Your task to perform on an android device: check google app version Image 0: 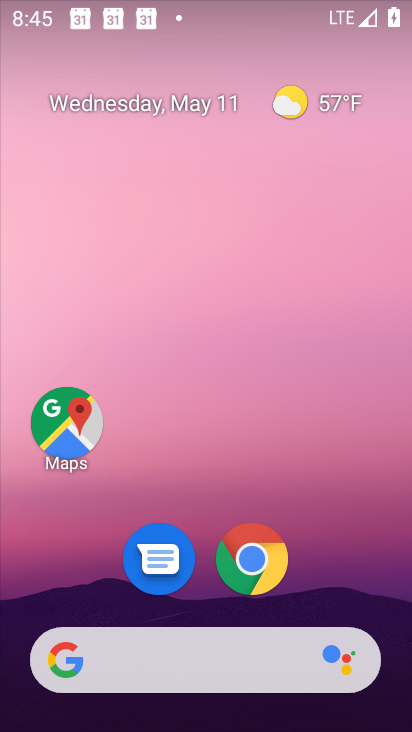
Step 0: press home button
Your task to perform on an android device: check google app version Image 1: 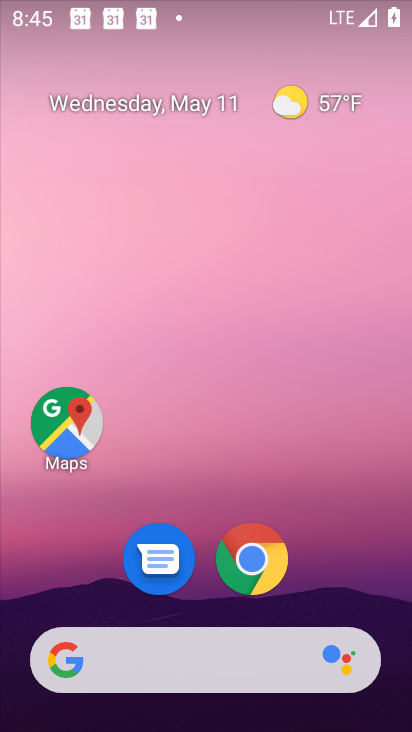
Step 1: drag from (334, 583) to (316, 17)
Your task to perform on an android device: check google app version Image 2: 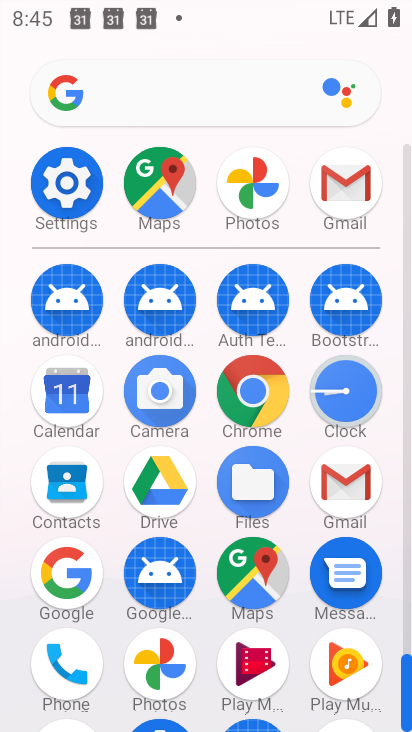
Step 2: click (43, 579)
Your task to perform on an android device: check google app version Image 3: 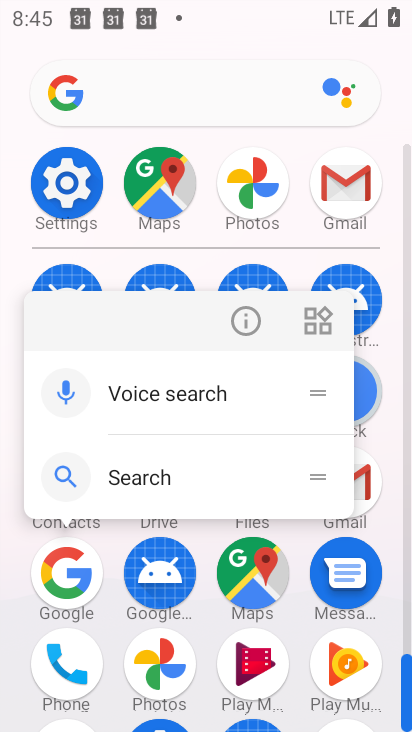
Step 3: click (239, 333)
Your task to perform on an android device: check google app version Image 4: 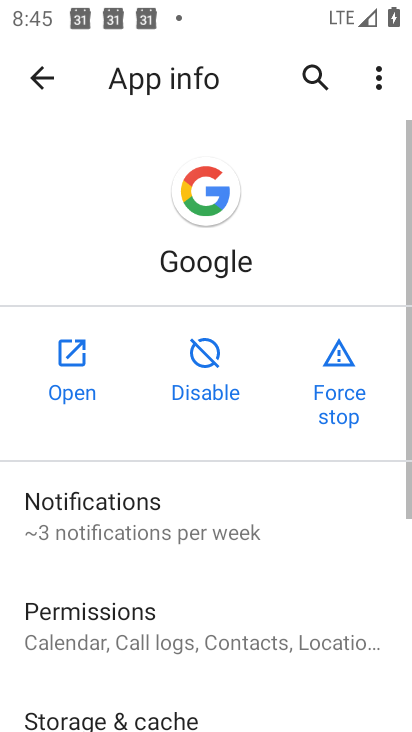
Step 4: drag from (286, 578) to (284, 65)
Your task to perform on an android device: check google app version Image 5: 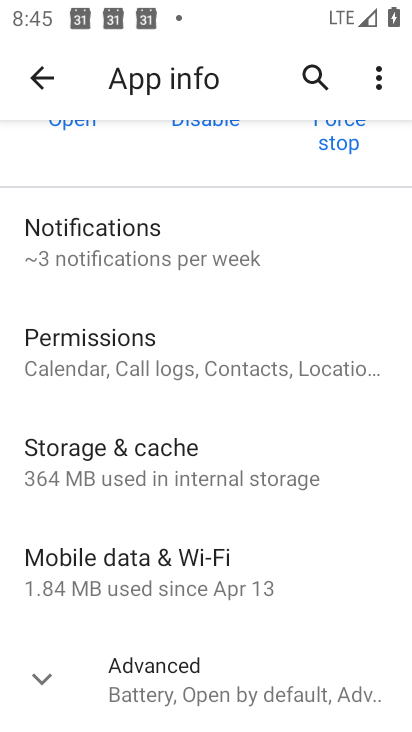
Step 5: click (147, 651)
Your task to perform on an android device: check google app version Image 6: 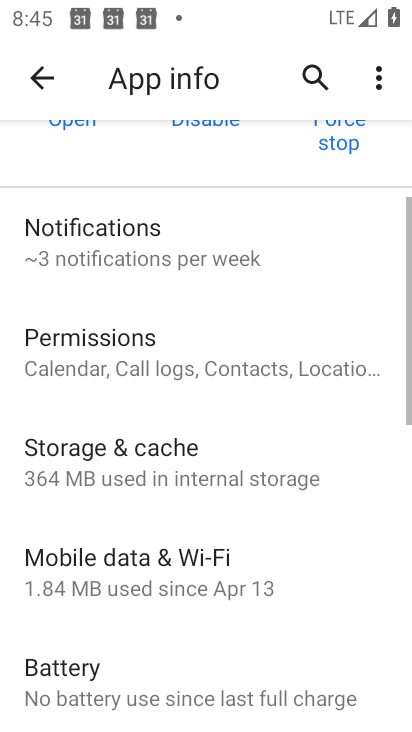
Step 6: drag from (162, 635) to (209, 13)
Your task to perform on an android device: check google app version Image 7: 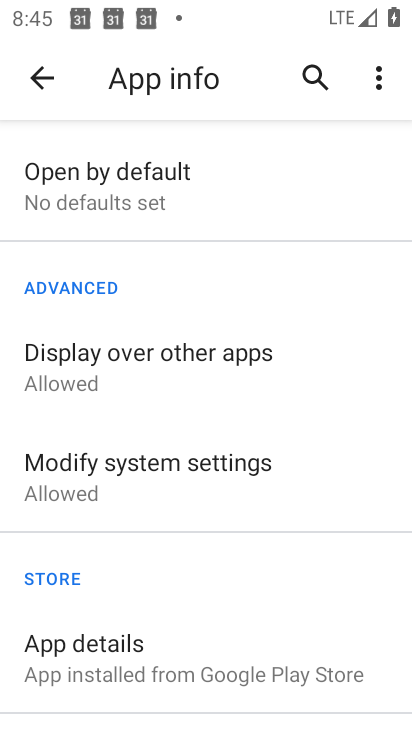
Step 7: drag from (205, 542) to (248, 223)
Your task to perform on an android device: check google app version Image 8: 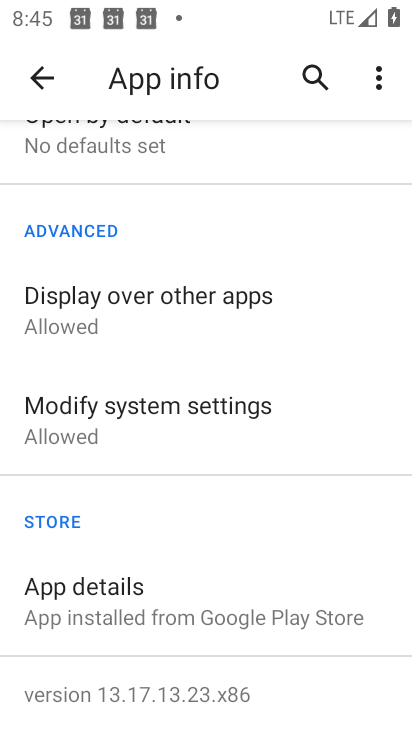
Step 8: click (49, 706)
Your task to perform on an android device: check google app version Image 9: 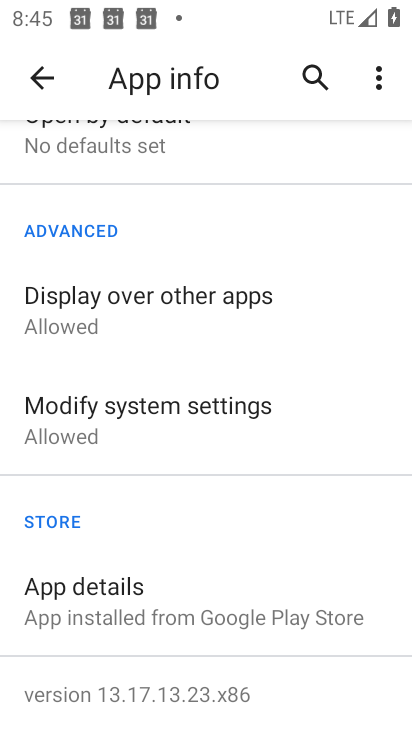
Step 9: task complete